Your task to perform on an android device: clear history in the chrome app Image 0: 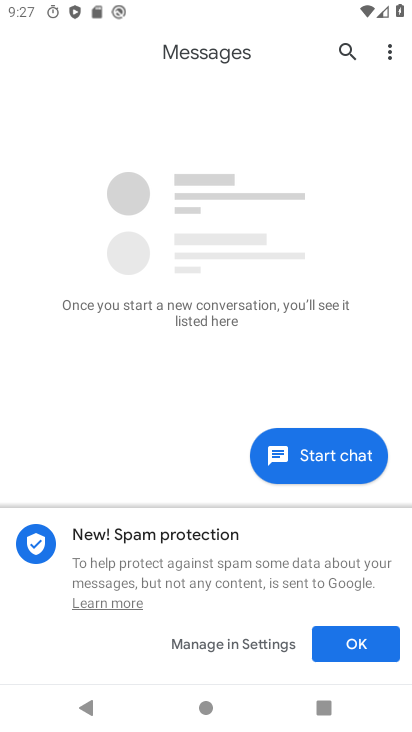
Step 0: press home button
Your task to perform on an android device: clear history in the chrome app Image 1: 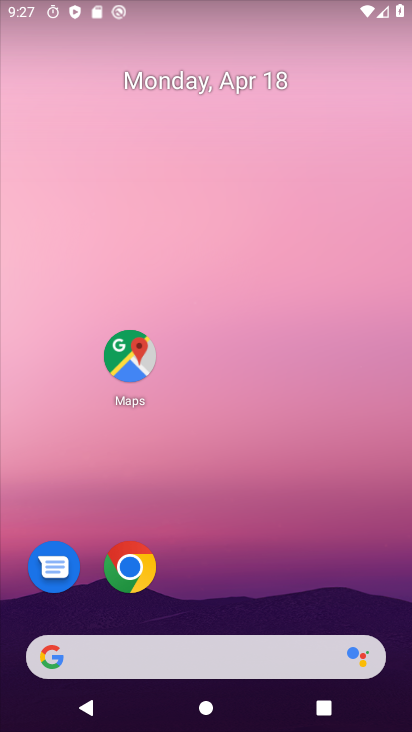
Step 1: drag from (229, 679) to (376, 252)
Your task to perform on an android device: clear history in the chrome app Image 2: 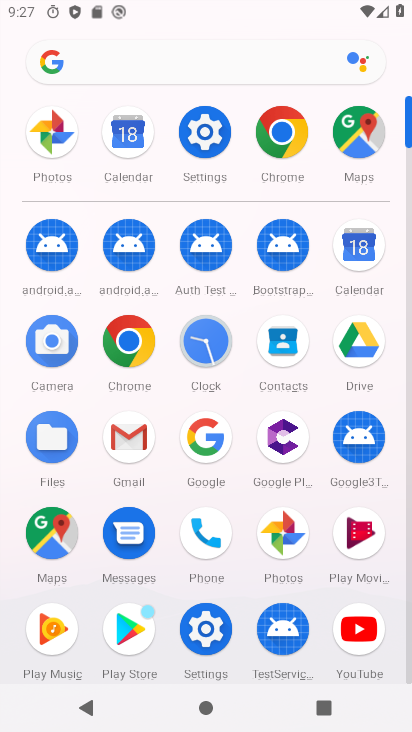
Step 2: click (145, 343)
Your task to perform on an android device: clear history in the chrome app Image 3: 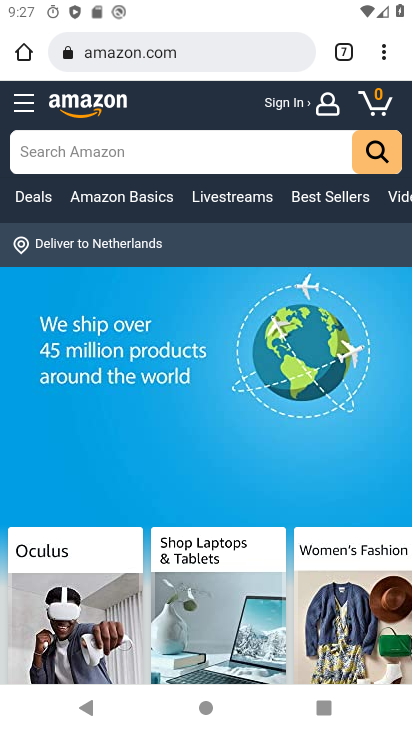
Step 3: click (379, 50)
Your task to perform on an android device: clear history in the chrome app Image 4: 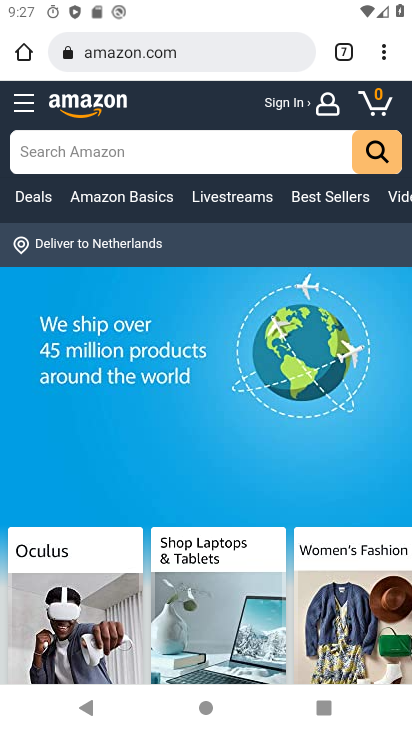
Step 4: click (382, 59)
Your task to perform on an android device: clear history in the chrome app Image 5: 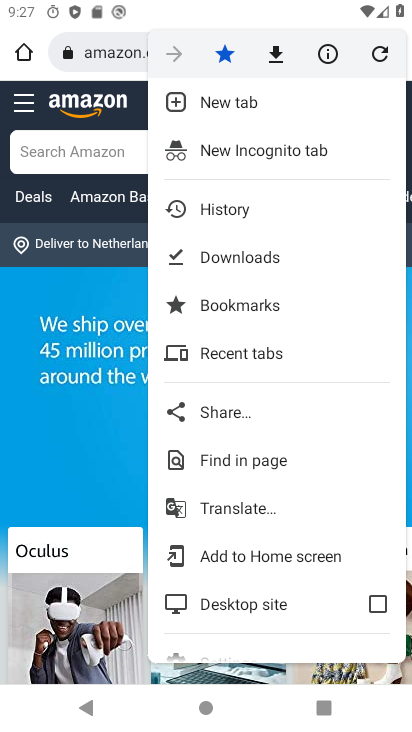
Step 5: drag from (268, 576) to (285, 405)
Your task to perform on an android device: clear history in the chrome app Image 6: 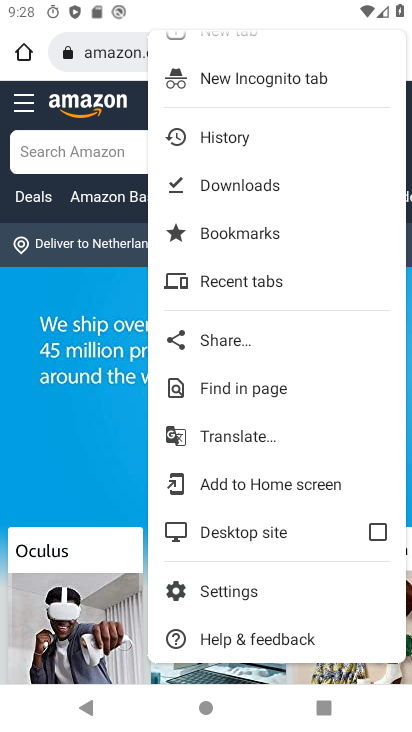
Step 6: click (236, 591)
Your task to perform on an android device: clear history in the chrome app Image 7: 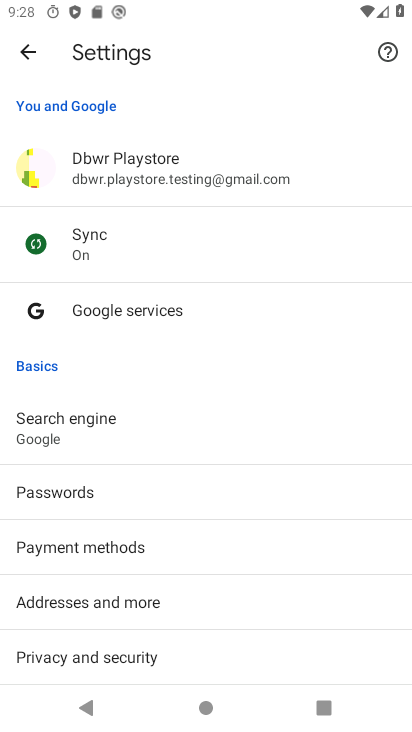
Step 7: drag from (209, 550) to (215, 378)
Your task to perform on an android device: clear history in the chrome app Image 8: 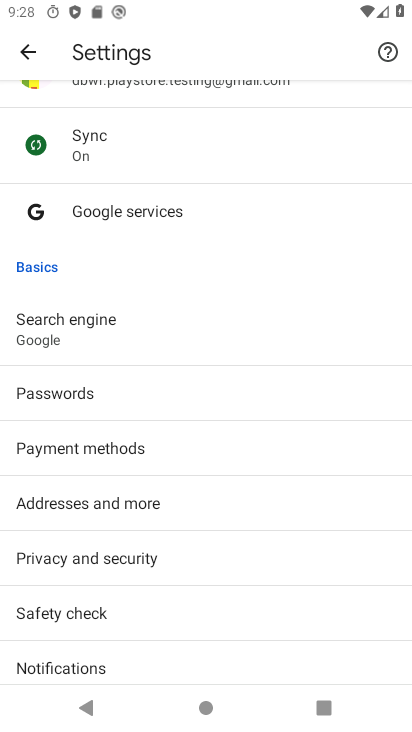
Step 8: drag from (94, 629) to (139, 453)
Your task to perform on an android device: clear history in the chrome app Image 9: 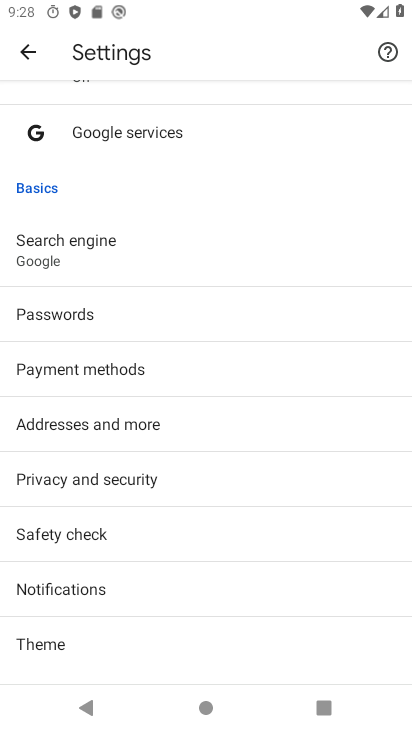
Step 9: drag from (195, 501) to (188, 328)
Your task to perform on an android device: clear history in the chrome app Image 10: 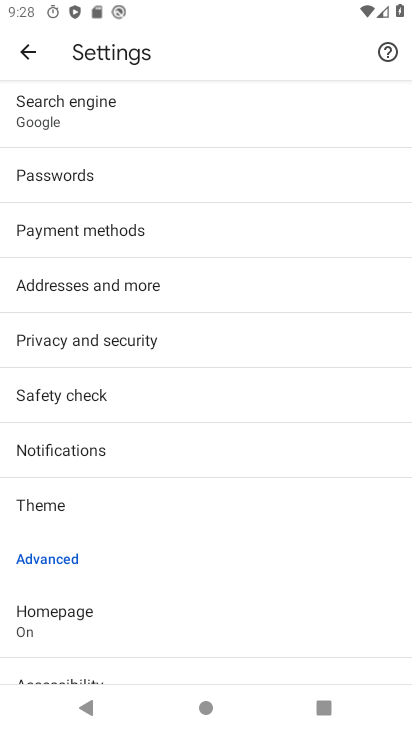
Step 10: drag from (188, 328) to (204, 230)
Your task to perform on an android device: clear history in the chrome app Image 11: 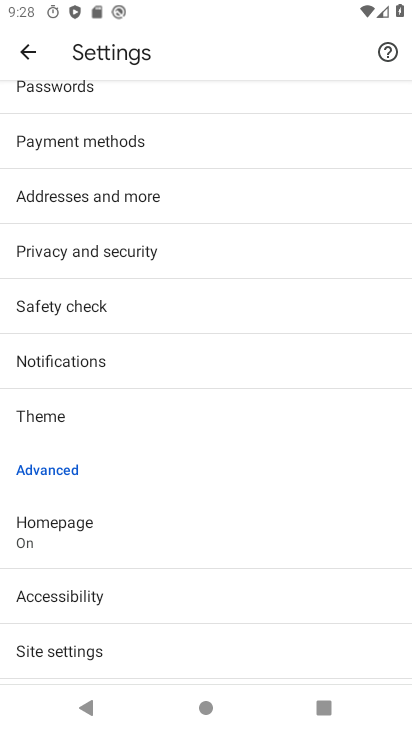
Step 11: click (35, 48)
Your task to perform on an android device: clear history in the chrome app Image 12: 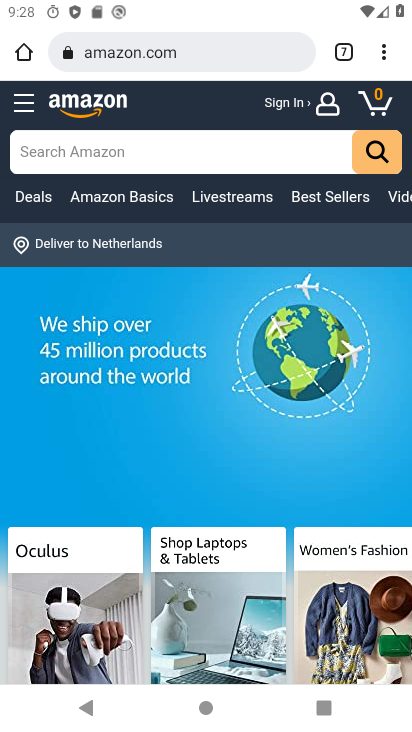
Step 12: click (381, 56)
Your task to perform on an android device: clear history in the chrome app Image 13: 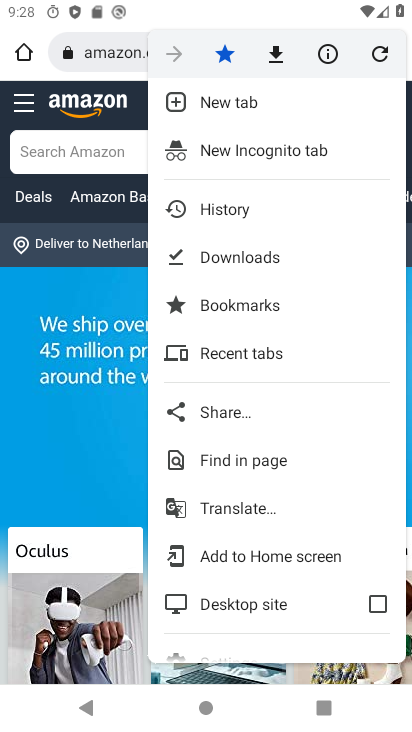
Step 13: click (241, 205)
Your task to perform on an android device: clear history in the chrome app Image 14: 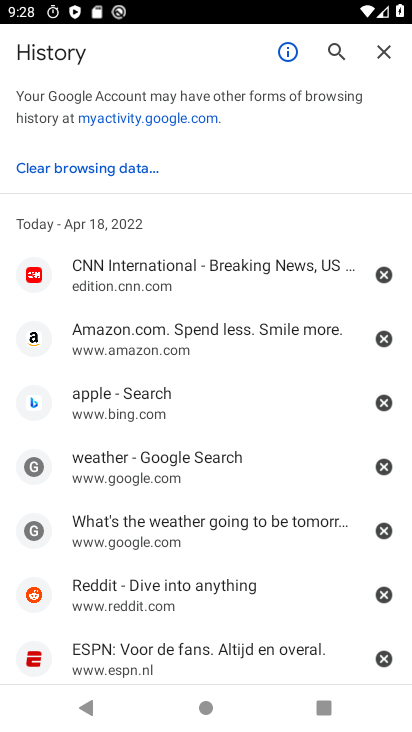
Step 14: click (122, 166)
Your task to perform on an android device: clear history in the chrome app Image 15: 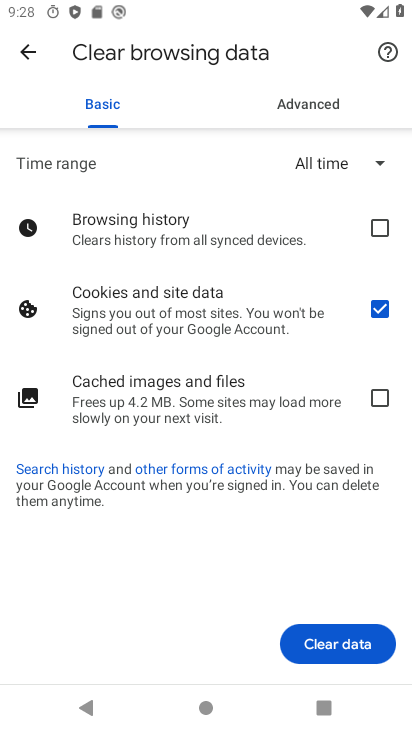
Step 15: click (391, 314)
Your task to perform on an android device: clear history in the chrome app Image 16: 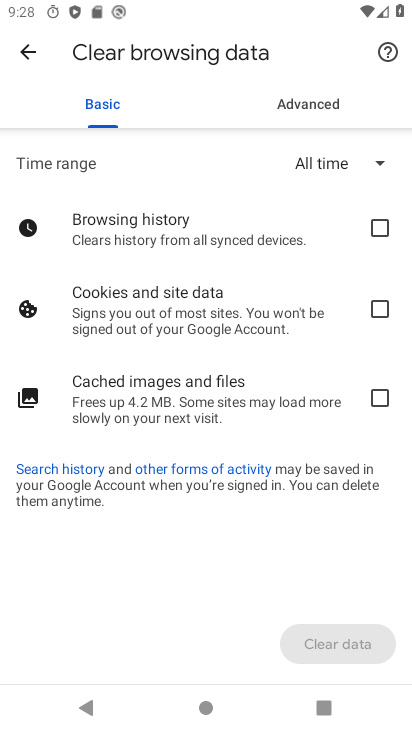
Step 16: click (387, 223)
Your task to perform on an android device: clear history in the chrome app Image 17: 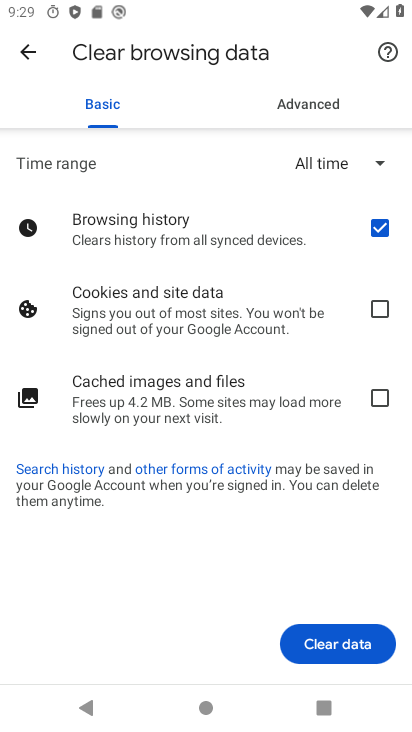
Step 17: click (327, 633)
Your task to perform on an android device: clear history in the chrome app Image 18: 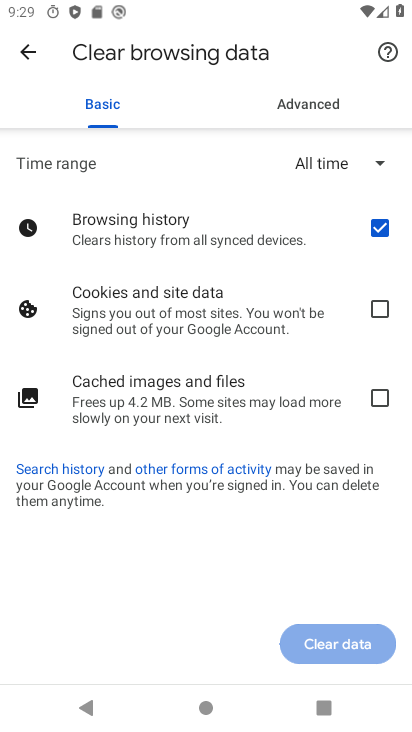
Step 18: task complete